Your task to perform on an android device: What's the weather today? Image 0: 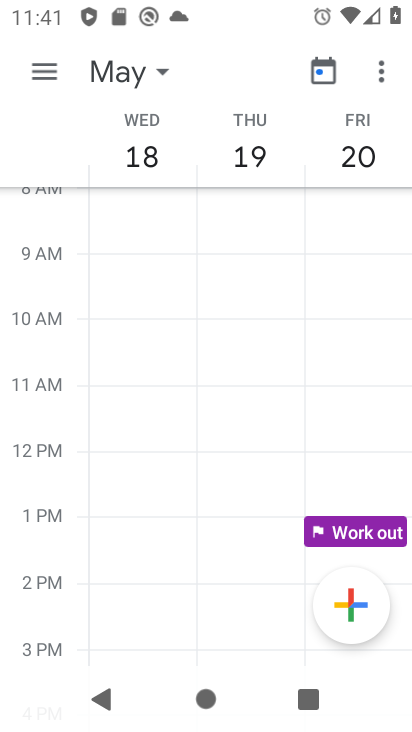
Step 0: press home button
Your task to perform on an android device: What's the weather today? Image 1: 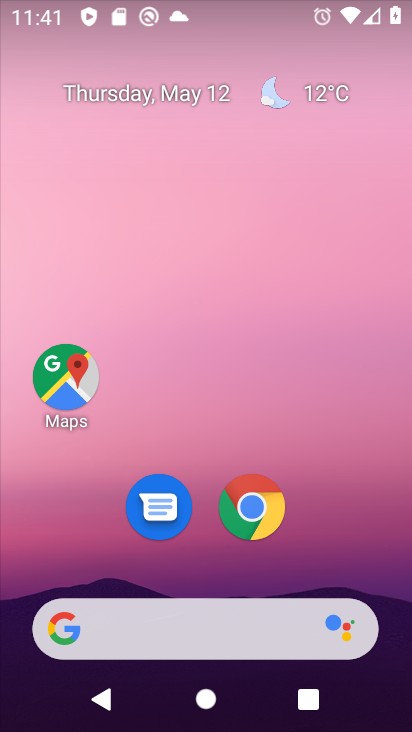
Step 1: click (337, 101)
Your task to perform on an android device: What's the weather today? Image 2: 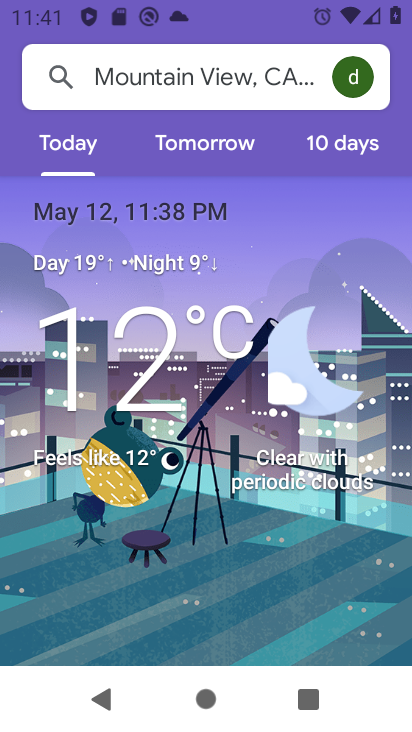
Step 2: task complete